Your task to perform on an android device: clear all cookies in the chrome app Image 0: 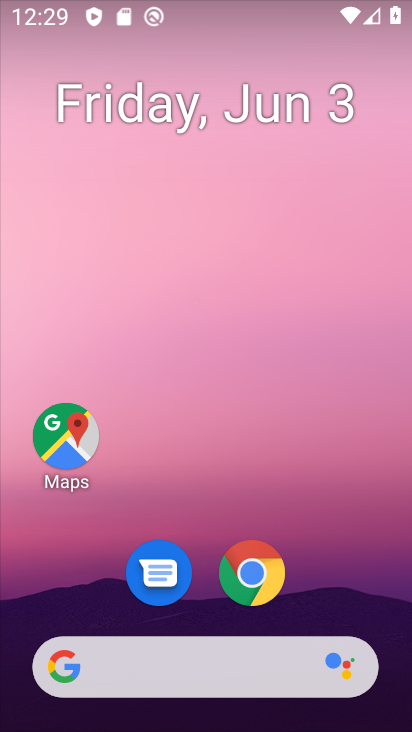
Step 0: click (256, 571)
Your task to perform on an android device: clear all cookies in the chrome app Image 1: 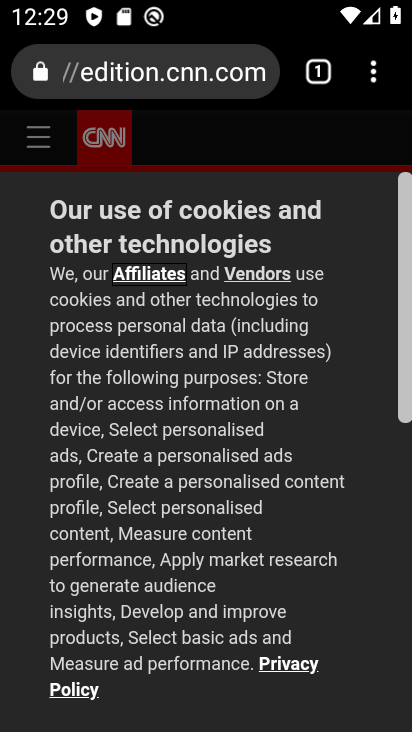
Step 1: click (375, 74)
Your task to perform on an android device: clear all cookies in the chrome app Image 2: 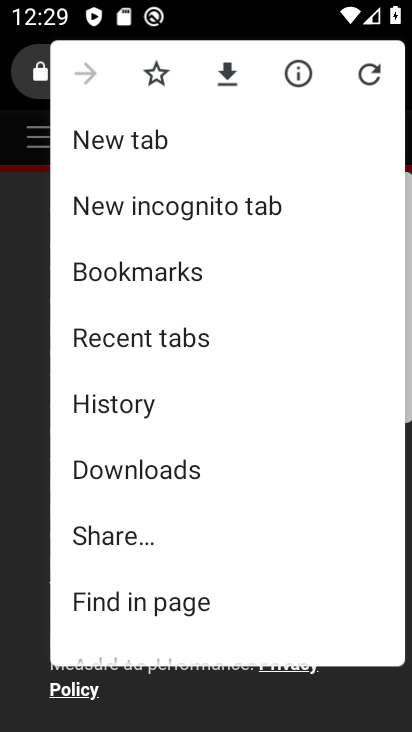
Step 2: drag from (245, 619) to (241, 260)
Your task to perform on an android device: clear all cookies in the chrome app Image 3: 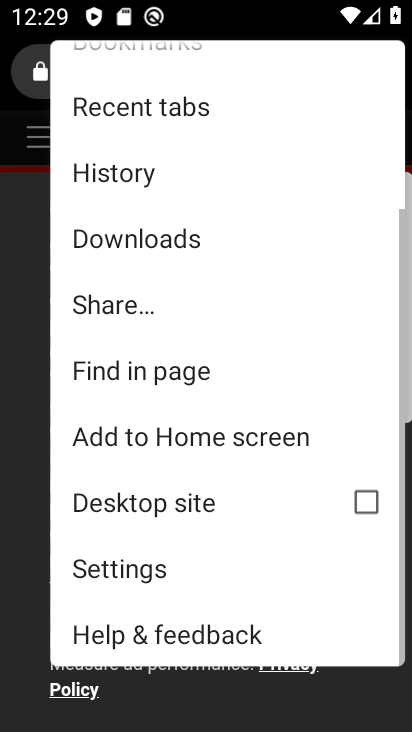
Step 3: click (141, 583)
Your task to perform on an android device: clear all cookies in the chrome app Image 4: 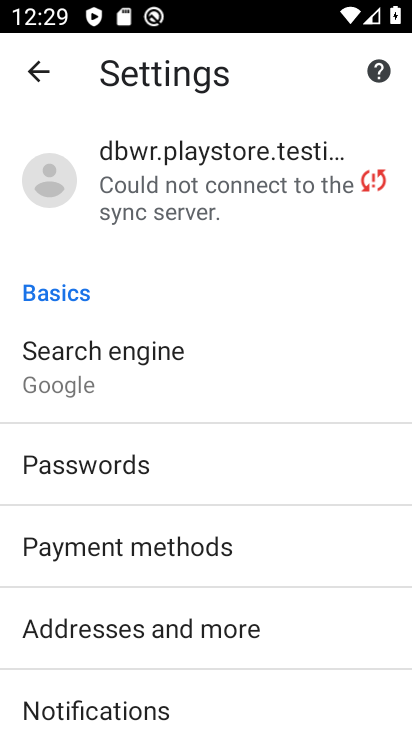
Step 4: drag from (345, 697) to (292, 184)
Your task to perform on an android device: clear all cookies in the chrome app Image 5: 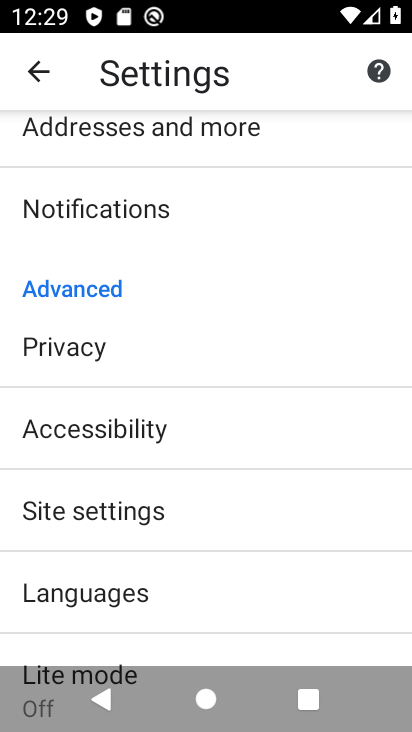
Step 5: click (120, 359)
Your task to perform on an android device: clear all cookies in the chrome app Image 6: 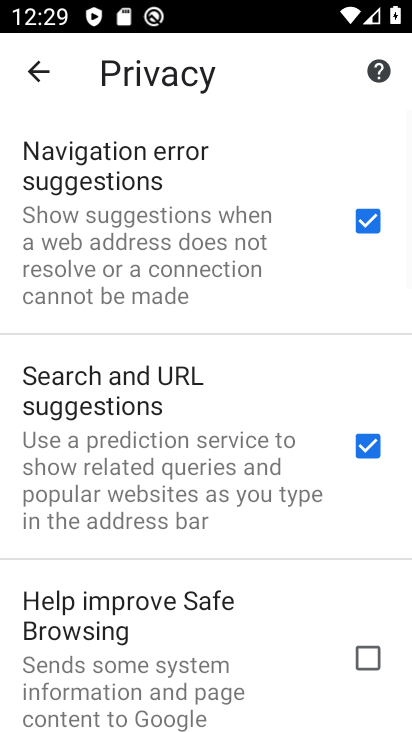
Step 6: drag from (302, 667) to (279, 261)
Your task to perform on an android device: clear all cookies in the chrome app Image 7: 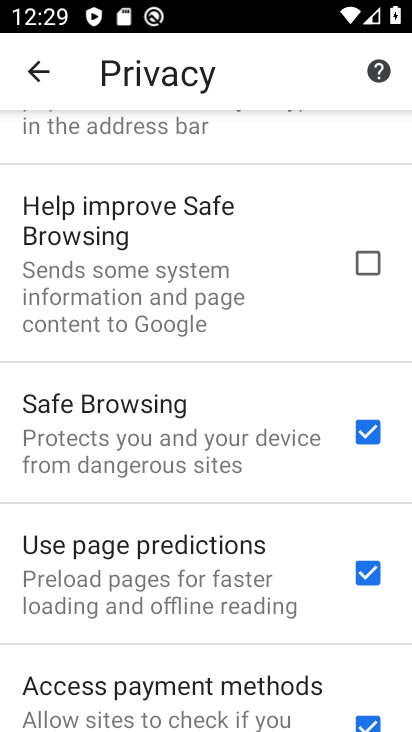
Step 7: drag from (314, 630) to (295, 263)
Your task to perform on an android device: clear all cookies in the chrome app Image 8: 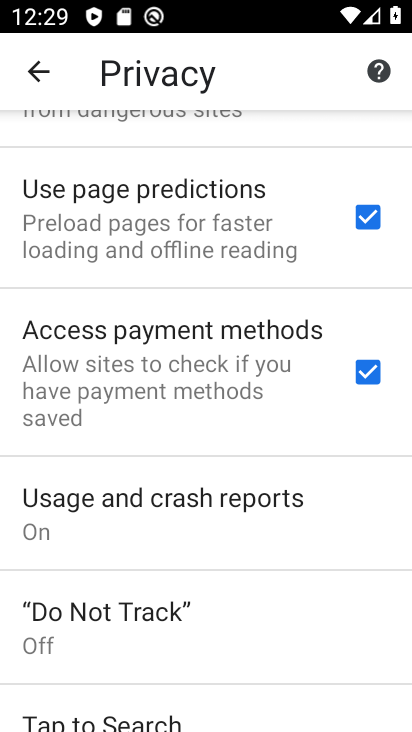
Step 8: drag from (268, 661) to (320, 284)
Your task to perform on an android device: clear all cookies in the chrome app Image 9: 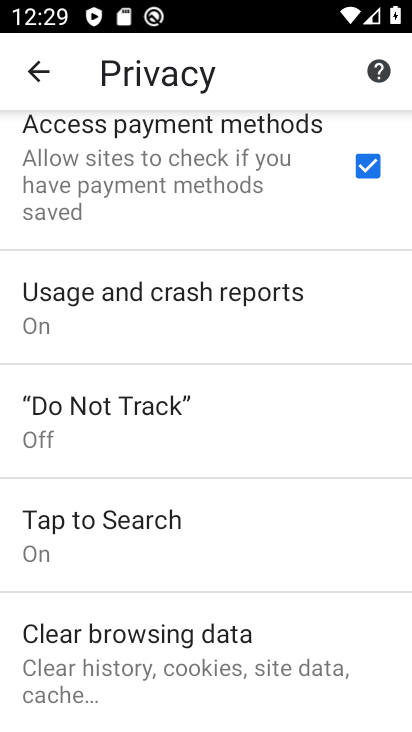
Step 9: click (183, 673)
Your task to perform on an android device: clear all cookies in the chrome app Image 10: 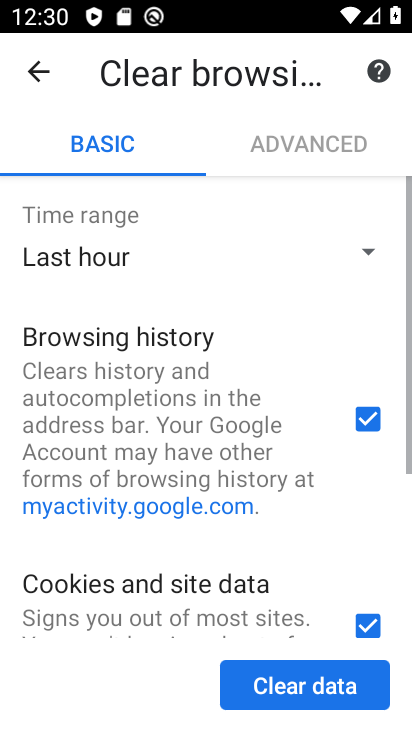
Step 10: click (367, 417)
Your task to perform on an android device: clear all cookies in the chrome app Image 11: 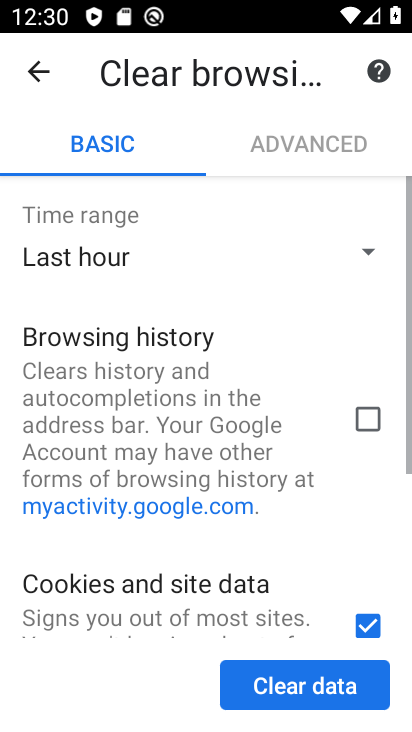
Step 11: click (373, 253)
Your task to perform on an android device: clear all cookies in the chrome app Image 12: 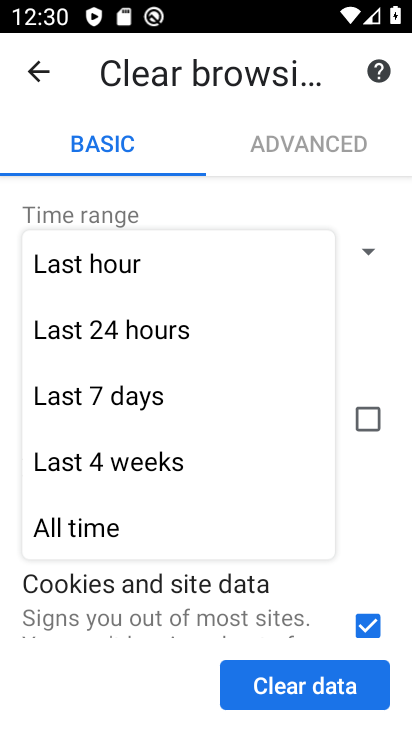
Step 12: click (92, 528)
Your task to perform on an android device: clear all cookies in the chrome app Image 13: 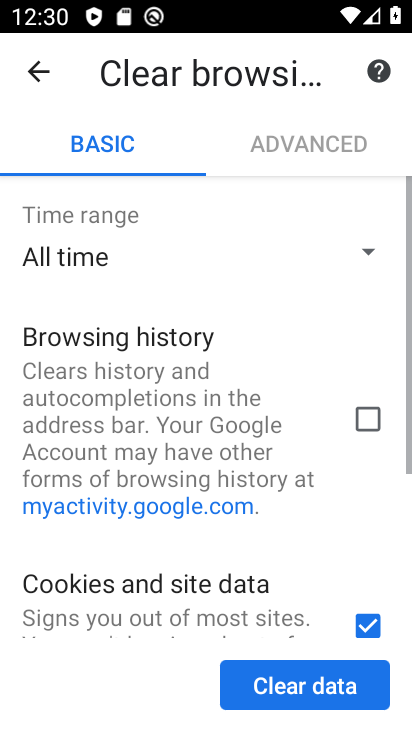
Step 13: drag from (157, 525) to (95, 239)
Your task to perform on an android device: clear all cookies in the chrome app Image 14: 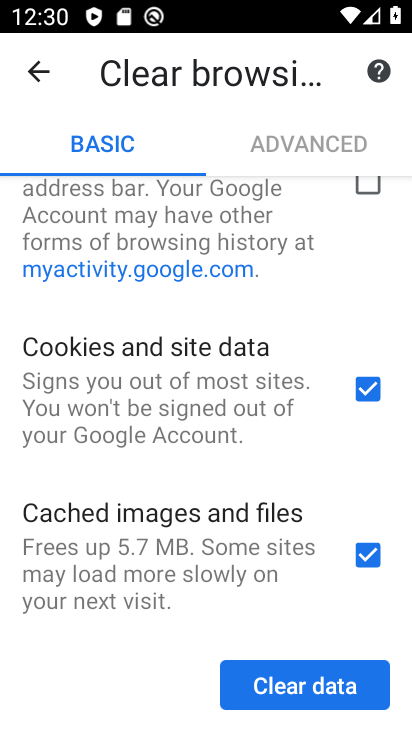
Step 14: click (377, 555)
Your task to perform on an android device: clear all cookies in the chrome app Image 15: 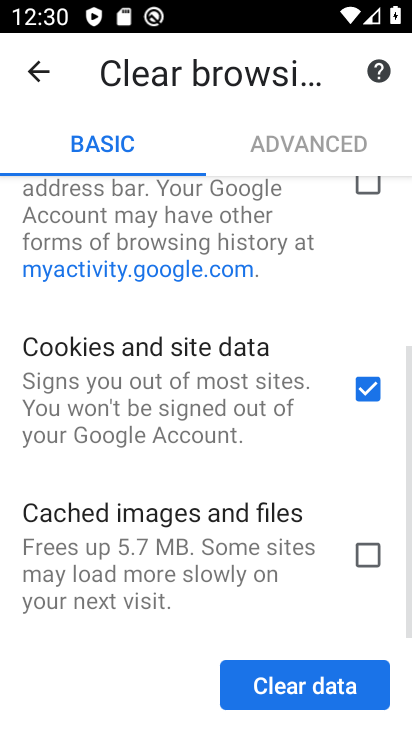
Step 15: click (303, 694)
Your task to perform on an android device: clear all cookies in the chrome app Image 16: 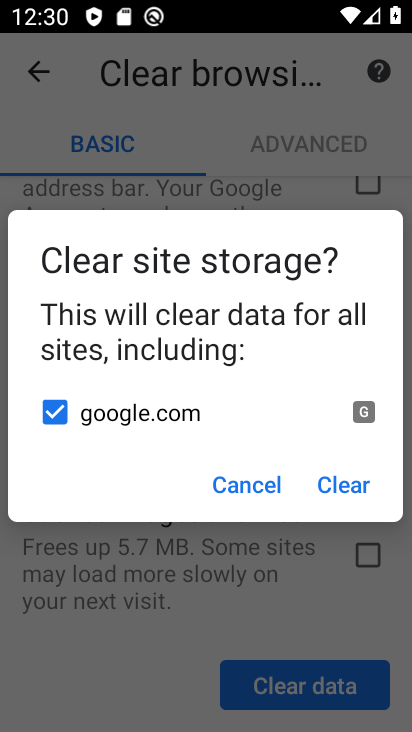
Step 16: click (334, 489)
Your task to perform on an android device: clear all cookies in the chrome app Image 17: 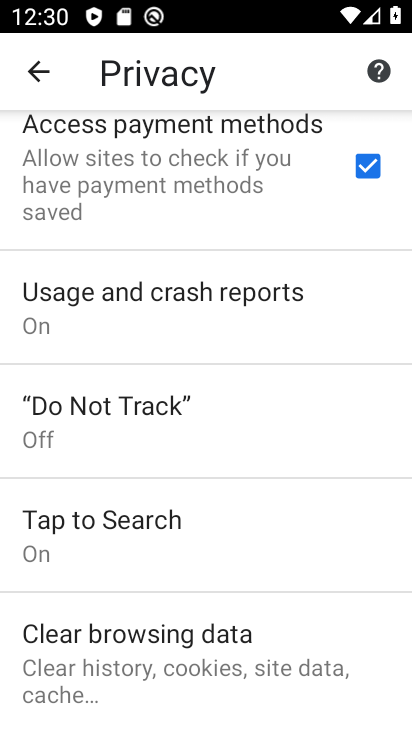
Step 17: task complete